Your task to perform on an android device: Search for sushi restaurants on Maps Image 0: 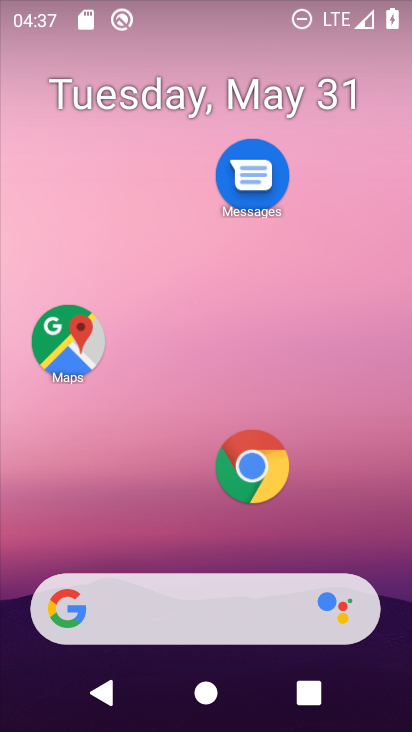
Step 0: click (78, 338)
Your task to perform on an android device: Search for sushi restaurants on Maps Image 1: 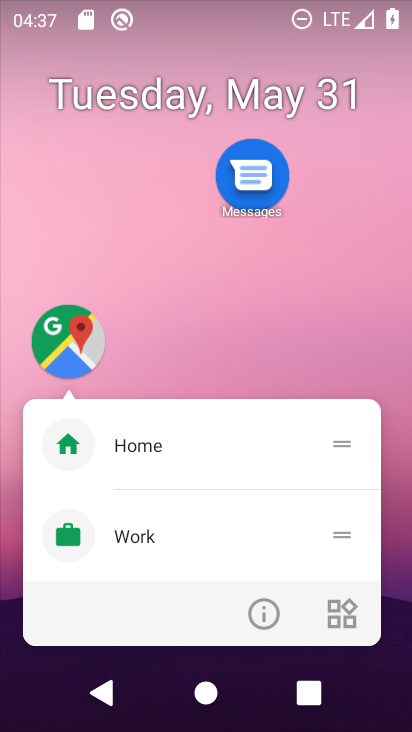
Step 1: click (60, 336)
Your task to perform on an android device: Search for sushi restaurants on Maps Image 2: 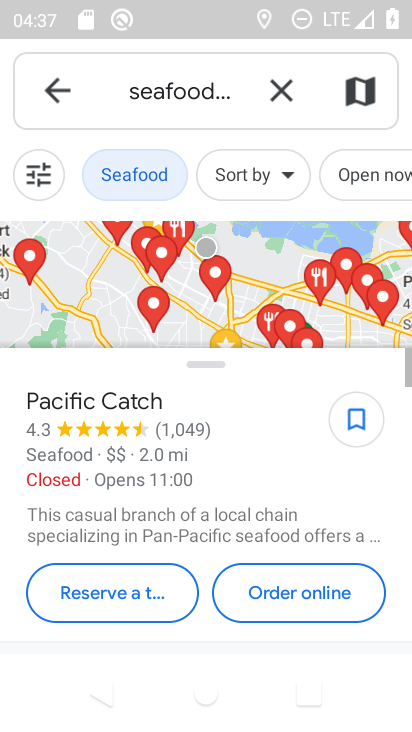
Step 2: click (269, 102)
Your task to perform on an android device: Search for sushi restaurants on Maps Image 3: 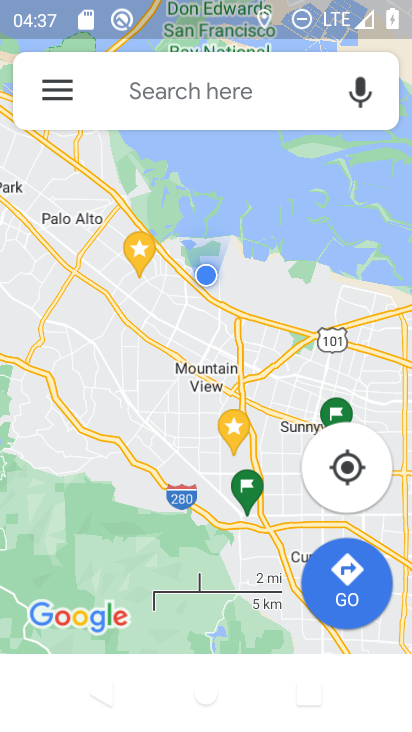
Step 3: click (183, 88)
Your task to perform on an android device: Search for sushi restaurants on Maps Image 4: 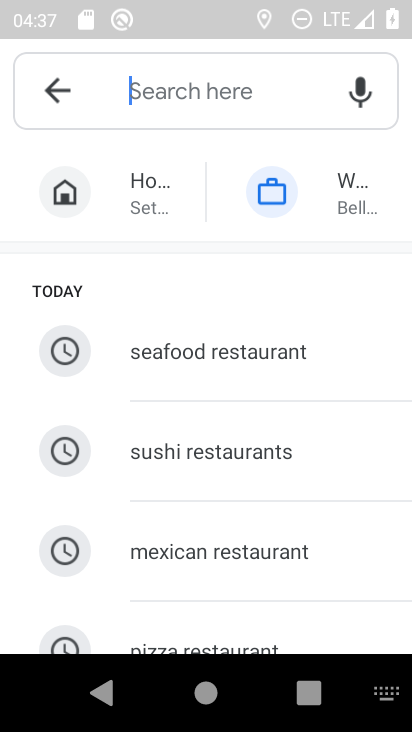
Step 4: click (200, 461)
Your task to perform on an android device: Search for sushi restaurants on Maps Image 5: 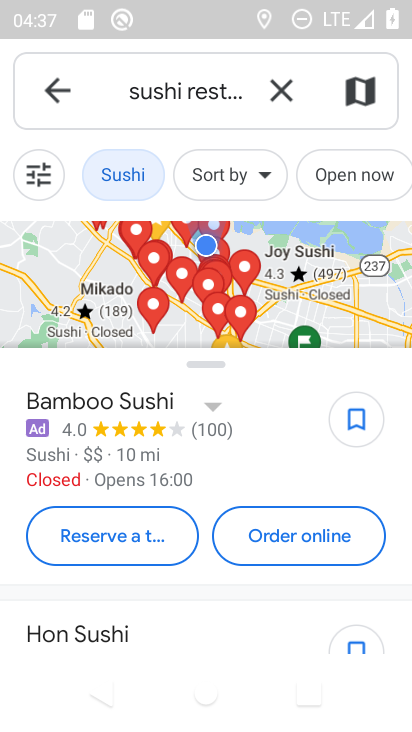
Step 5: task complete